Your task to perform on an android device: Search for sushi restaurants on Maps Image 0: 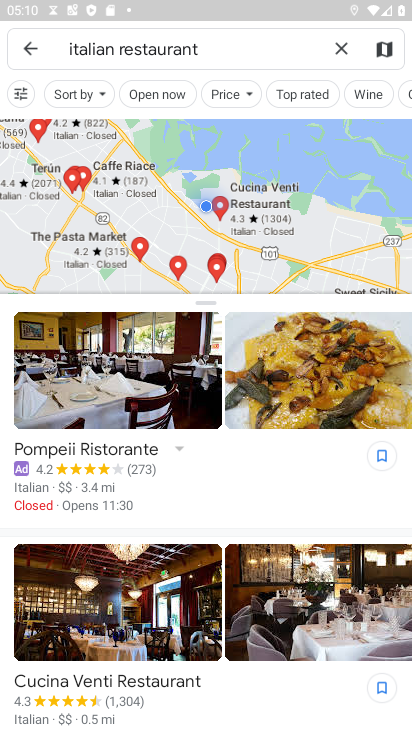
Step 0: click (330, 44)
Your task to perform on an android device: Search for sushi restaurants on Maps Image 1: 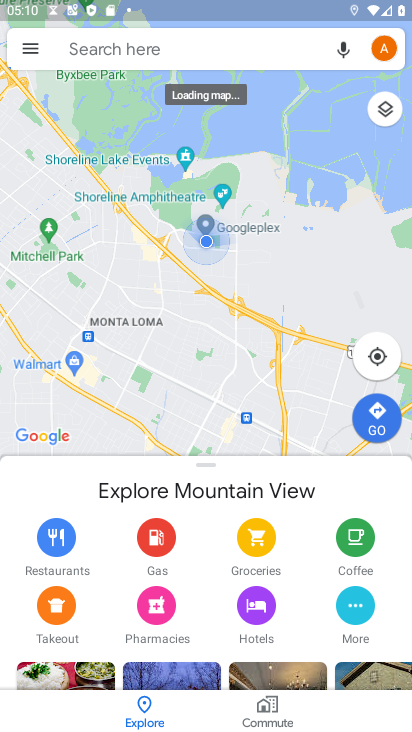
Step 1: click (217, 53)
Your task to perform on an android device: Search for sushi restaurants on Maps Image 2: 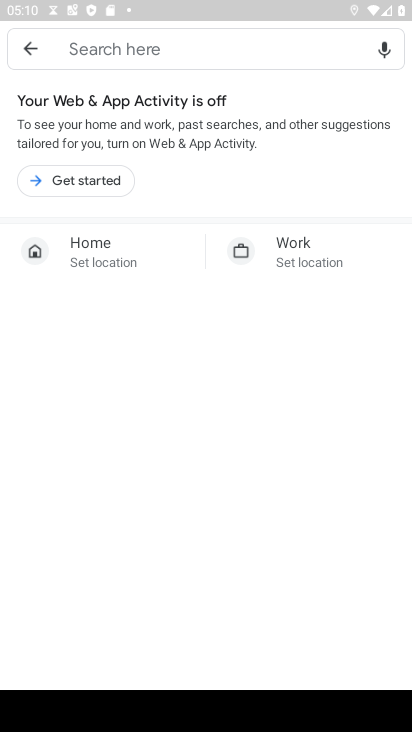
Step 2: type "sushi restaurant"
Your task to perform on an android device: Search for sushi restaurants on Maps Image 3: 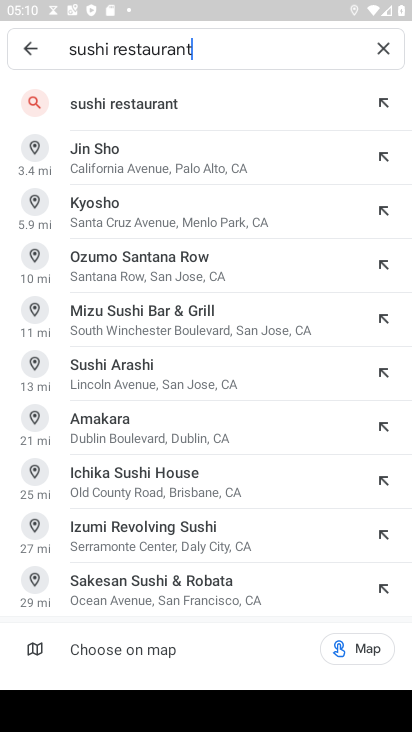
Step 3: click (136, 104)
Your task to perform on an android device: Search for sushi restaurants on Maps Image 4: 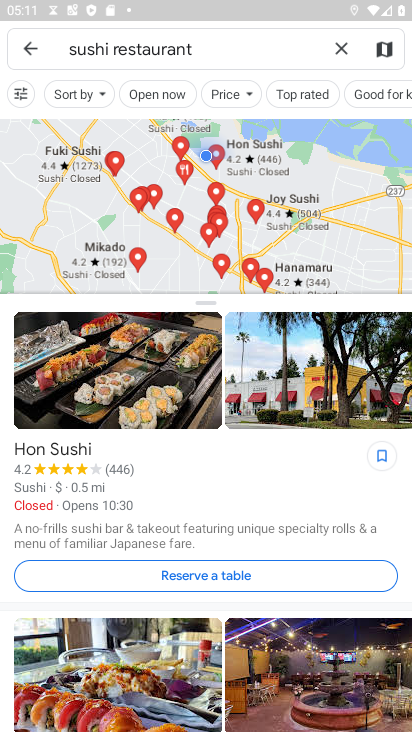
Step 4: task complete